Your task to perform on an android device: add a label to a message in the gmail app Image 0: 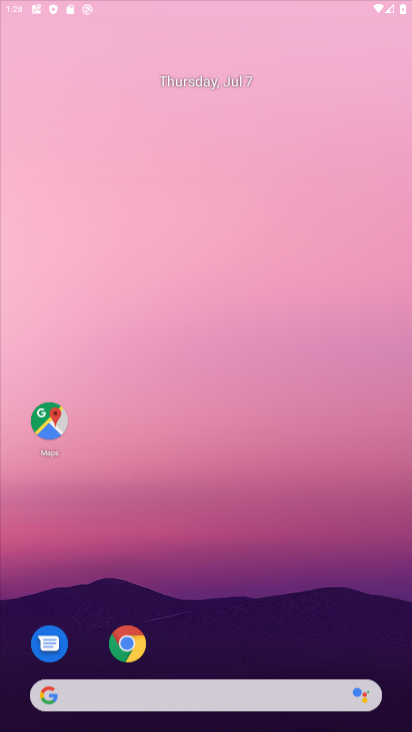
Step 0: press home button
Your task to perform on an android device: add a label to a message in the gmail app Image 1: 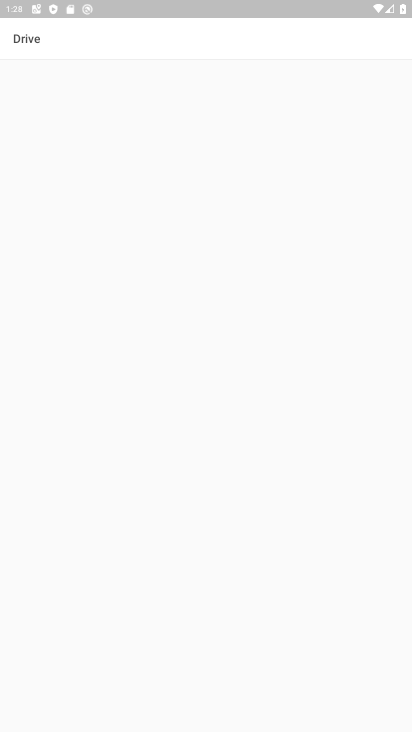
Step 1: press home button
Your task to perform on an android device: add a label to a message in the gmail app Image 2: 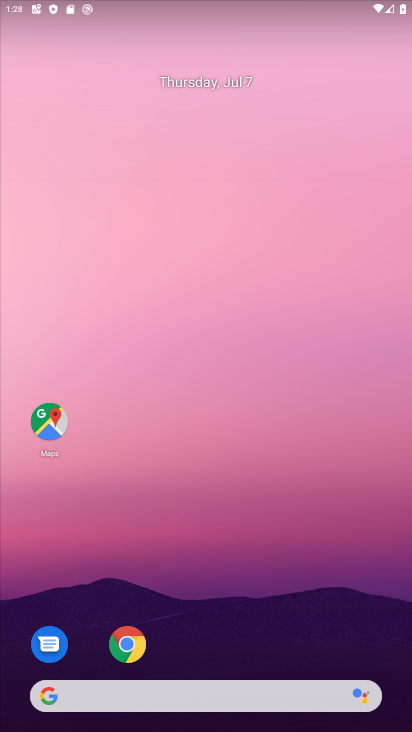
Step 2: drag from (222, 692) to (181, 187)
Your task to perform on an android device: add a label to a message in the gmail app Image 3: 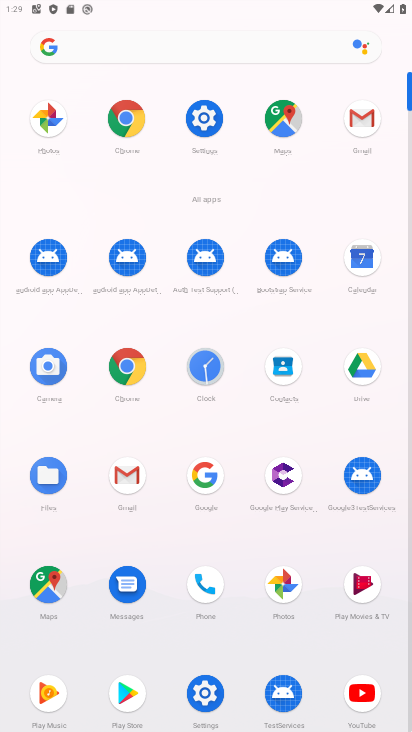
Step 3: click (379, 129)
Your task to perform on an android device: add a label to a message in the gmail app Image 4: 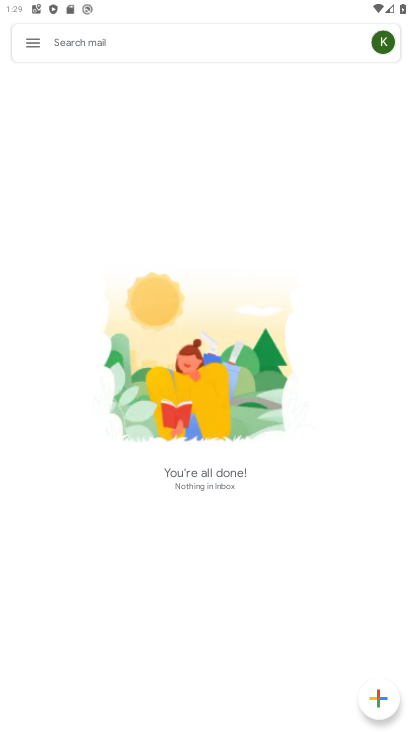
Step 4: click (40, 49)
Your task to perform on an android device: add a label to a message in the gmail app Image 5: 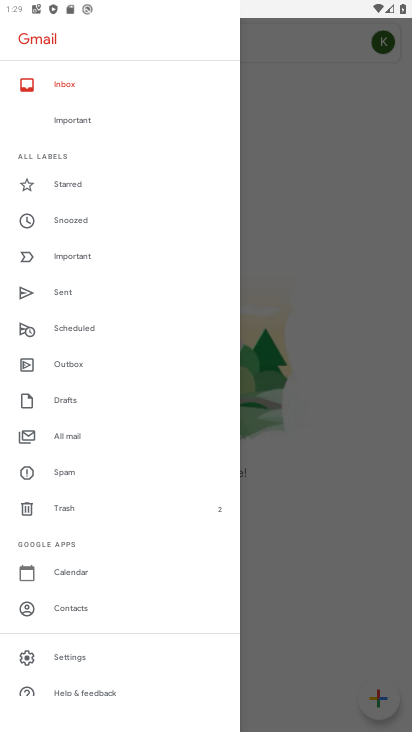
Step 5: click (76, 430)
Your task to perform on an android device: add a label to a message in the gmail app Image 6: 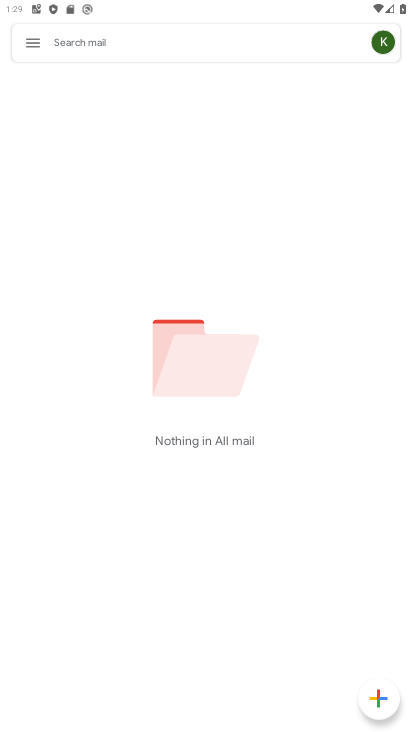
Step 6: task complete